Your task to perform on an android device: turn off location history Image 0: 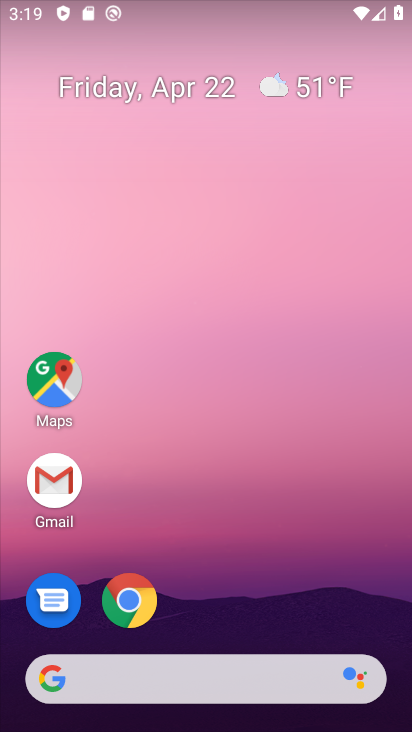
Step 0: drag from (194, 332) to (174, 197)
Your task to perform on an android device: turn off location history Image 1: 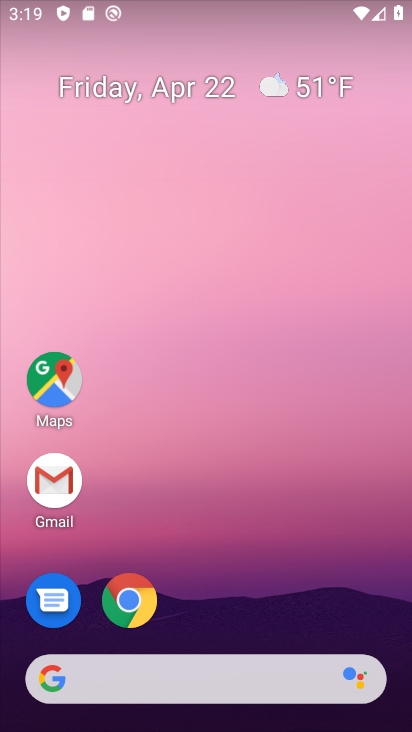
Step 1: click (135, 220)
Your task to perform on an android device: turn off location history Image 2: 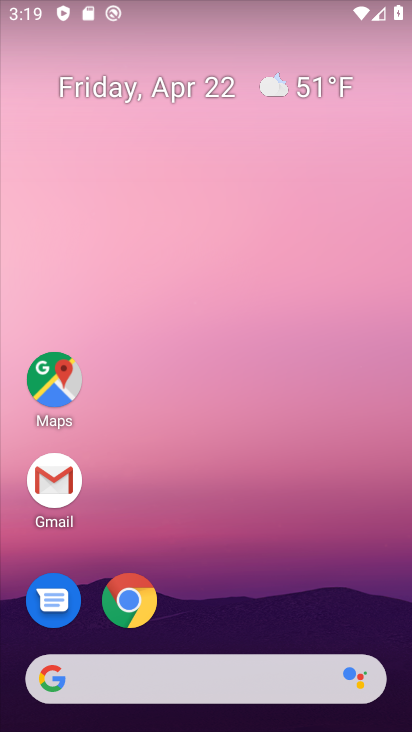
Step 2: drag from (127, 234) to (127, 178)
Your task to perform on an android device: turn off location history Image 3: 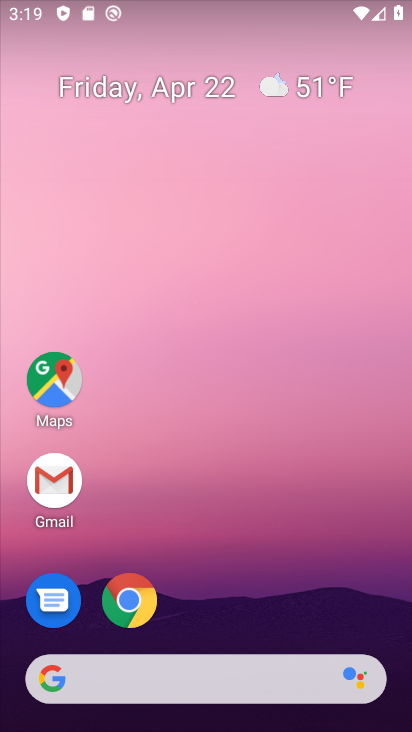
Step 3: drag from (217, 441) to (135, 120)
Your task to perform on an android device: turn off location history Image 4: 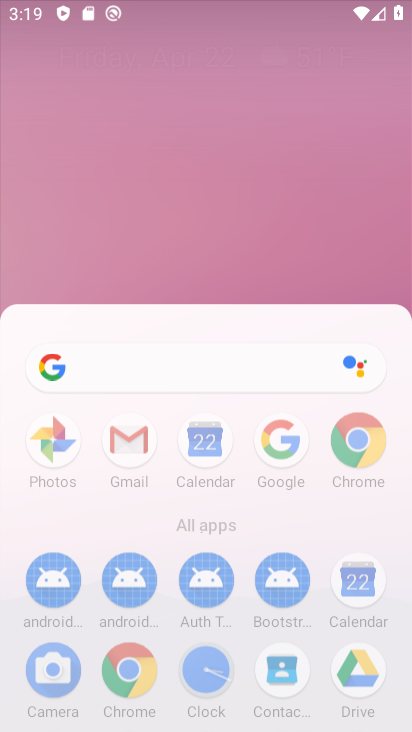
Step 4: drag from (194, 385) to (121, 118)
Your task to perform on an android device: turn off location history Image 5: 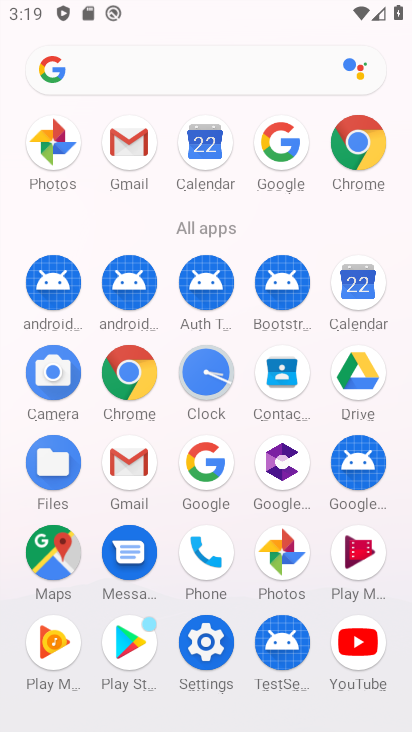
Step 5: click (33, 549)
Your task to perform on an android device: turn off location history Image 6: 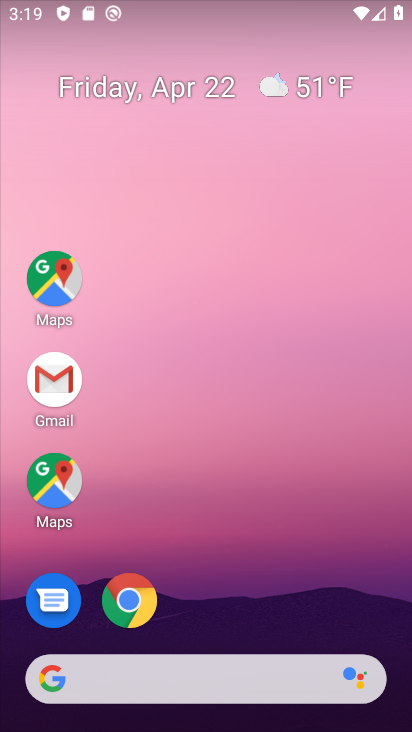
Step 6: drag from (212, 506) to (178, 302)
Your task to perform on an android device: turn off location history Image 7: 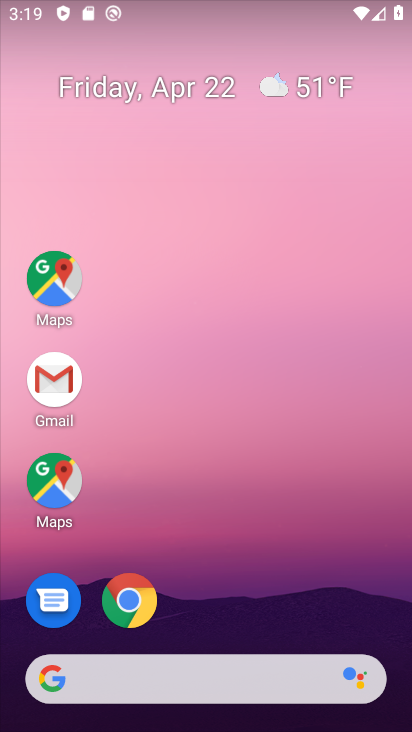
Step 7: drag from (213, 619) to (65, 223)
Your task to perform on an android device: turn off location history Image 8: 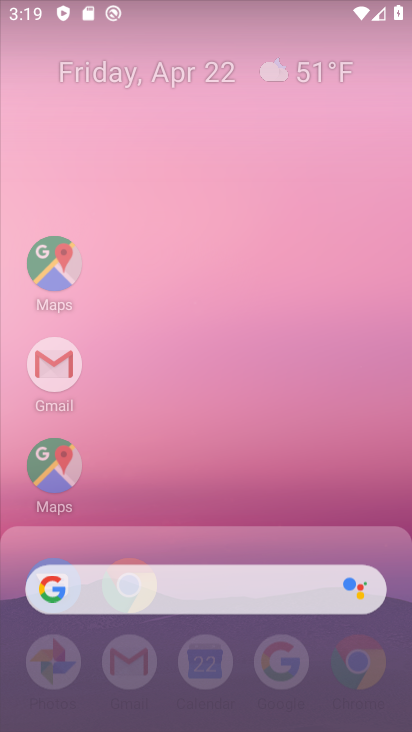
Step 8: click (161, 147)
Your task to perform on an android device: turn off location history Image 9: 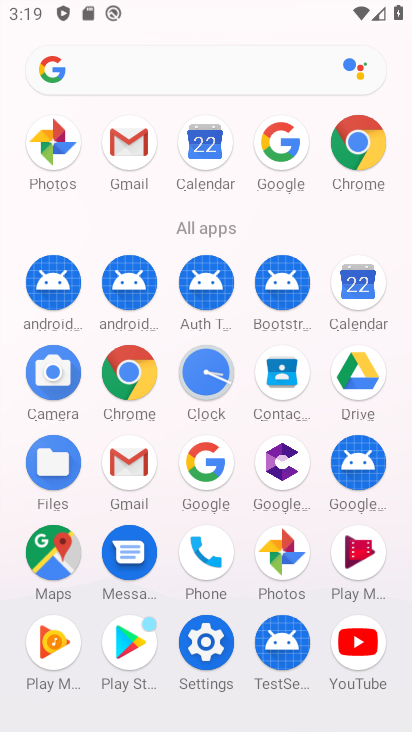
Step 9: drag from (186, 407) to (133, 152)
Your task to perform on an android device: turn off location history Image 10: 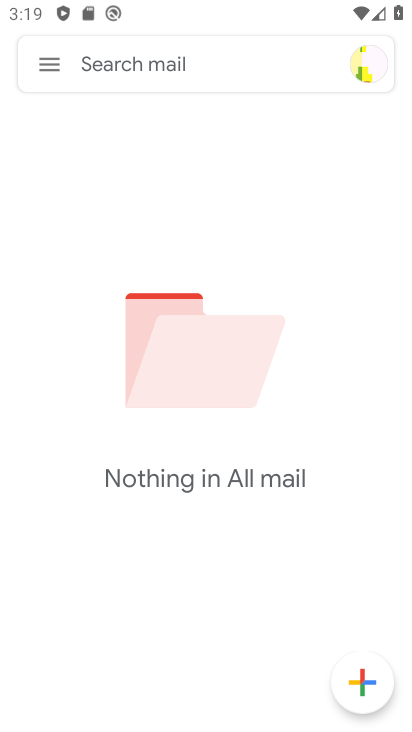
Step 10: drag from (181, 422) to (129, 68)
Your task to perform on an android device: turn off location history Image 11: 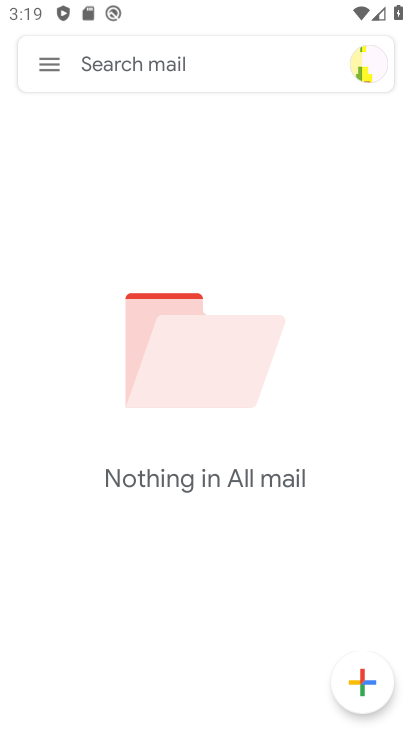
Step 11: press home button
Your task to perform on an android device: turn off location history Image 12: 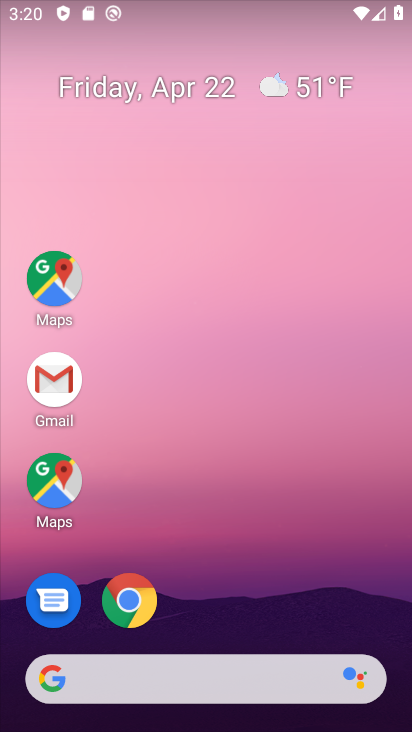
Step 12: drag from (239, 635) to (134, 10)
Your task to perform on an android device: turn off location history Image 13: 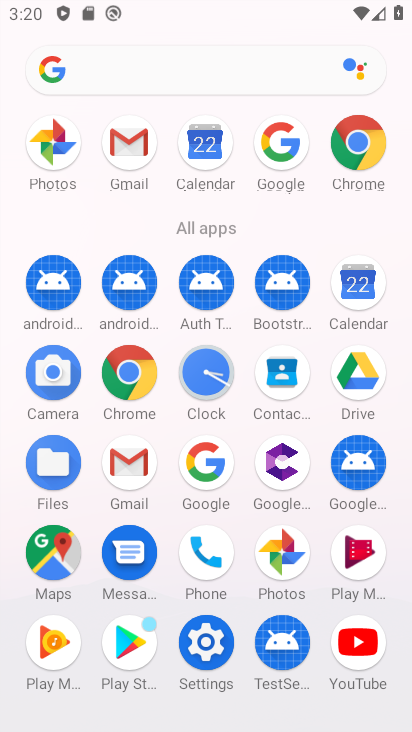
Step 13: drag from (145, 373) to (80, 46)
Your task to perform on an android device: turn off location history Image 14: 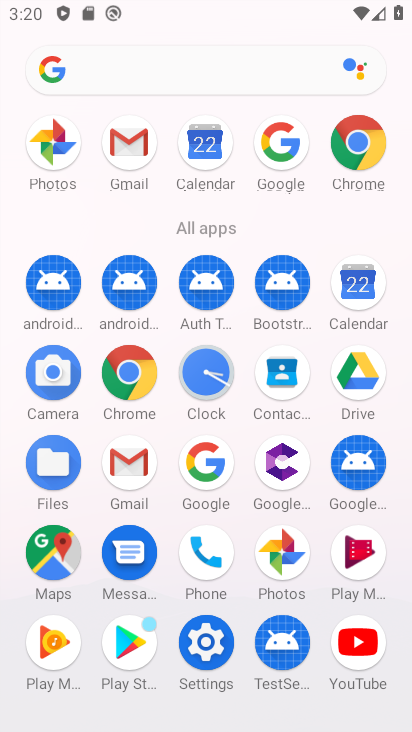
Step 14: click (45, 554)
Your task to perform on an android device: turn off location history Image 15: 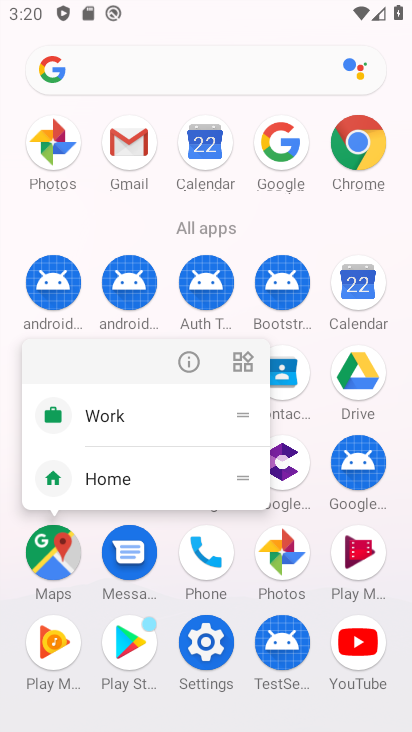
Step 15: click (50, 557)
Your task to perform on an android device: turn off location history Image 16: 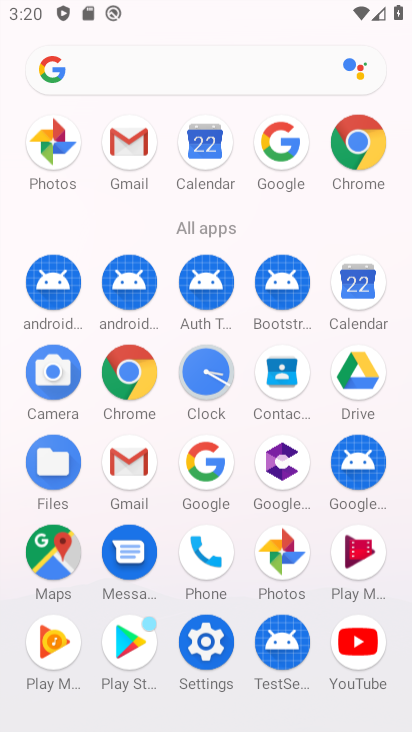
Step 16: click (47, 536)
Your task to perform on an android device: turn off location history Image 17: 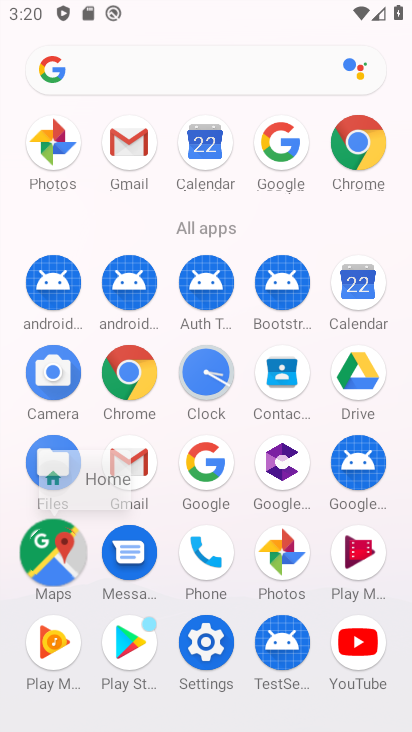
Step 17: click (46, 533)
Your task to perform on an android device: turn off location history Image 18: 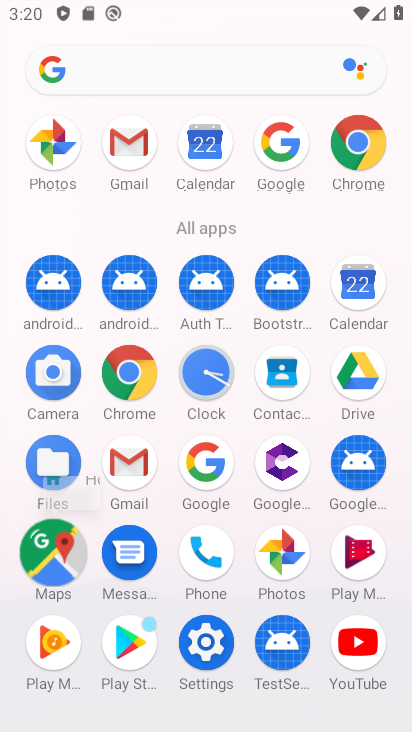
Step 18: click (46, 533)
Your task to perform on an android device: turn off location history Image 19: 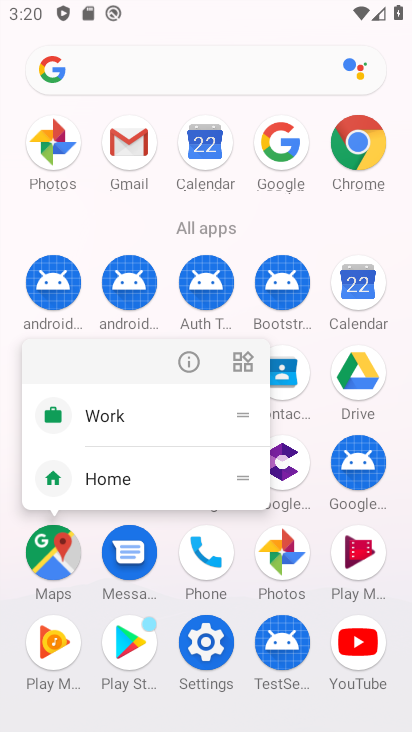
Step 19: click (51, 544)
Your task to perform on an android device: turn off location history Image 20: 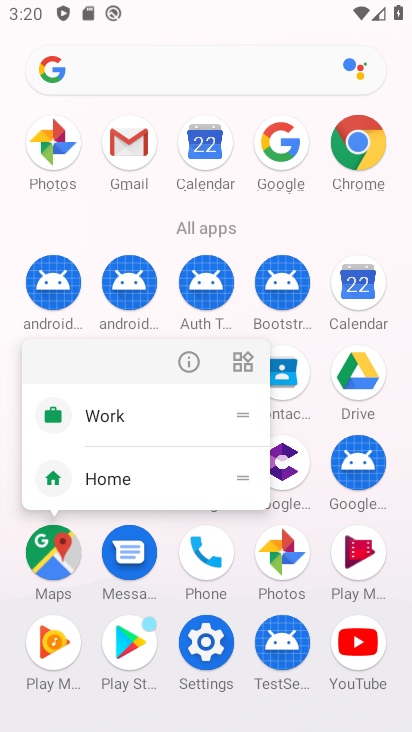
Step 20: click (51, 547)
Your task to perform on an android device: turn off location history Image 21: 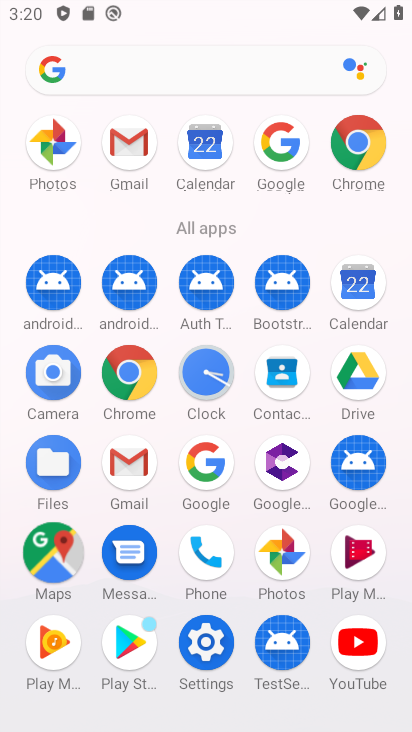
Step 21: click (41, 547)
Your task to perform on an android device: turn off location history Image 22: 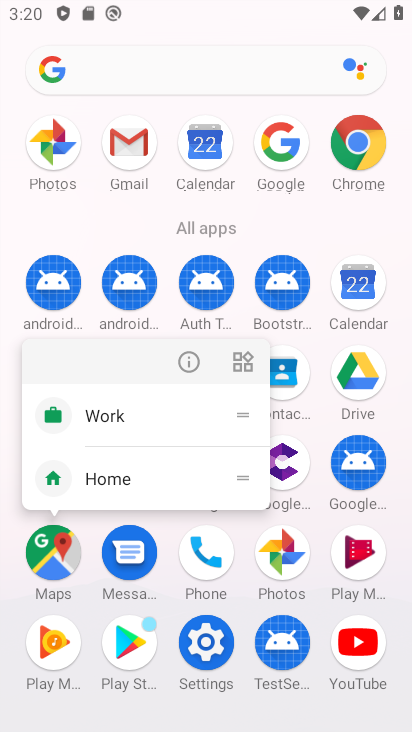
Step 22: click (52, 563)
Your task to perform on an android device: turn off location history Image 23: 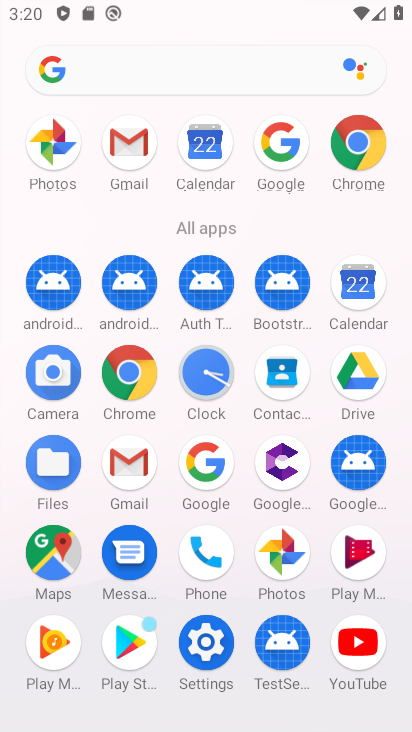
Step 23: click (58, 555)
Your task to perform on an android device: turn off location history Image 24: 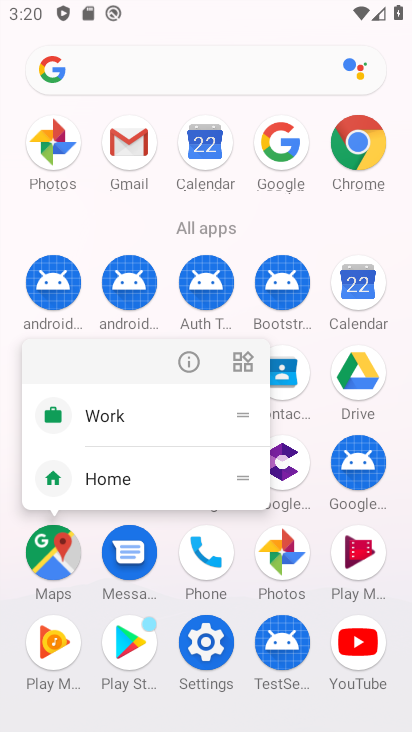
Step 24: click (43, 535)
Your task to perform on an android device: turn off location history Image 25: 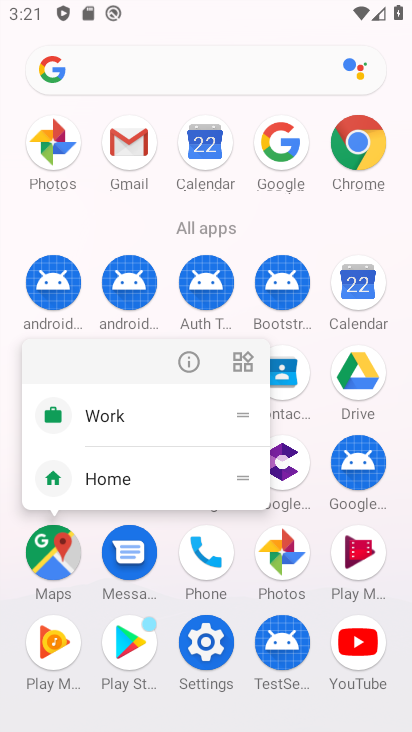
Step 25: click (47, 563)
Your task to perform on an android device: turn off location history Image 26: 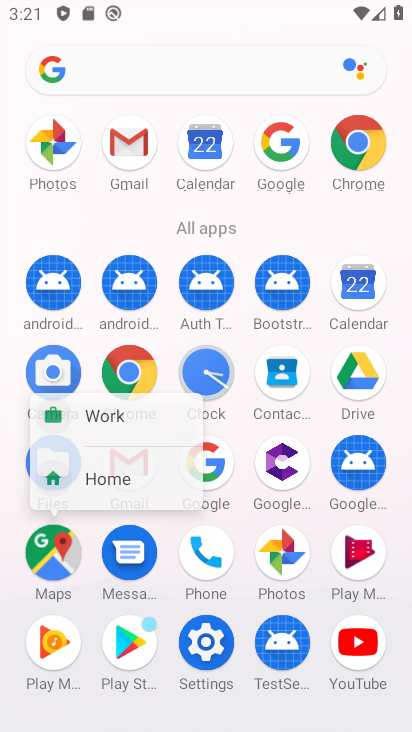
Step 26: click (47, 552)
Your task to perform on an android device: turn off location history Image 27: 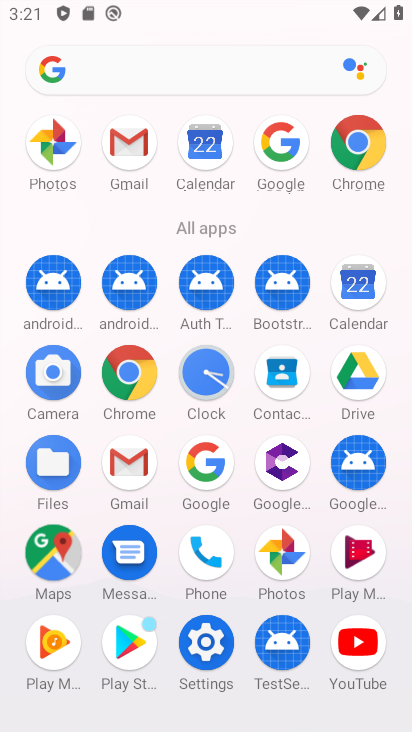
Step 27: click (52, 537)
Your task to perform on an android device: turn off location history Image 28: 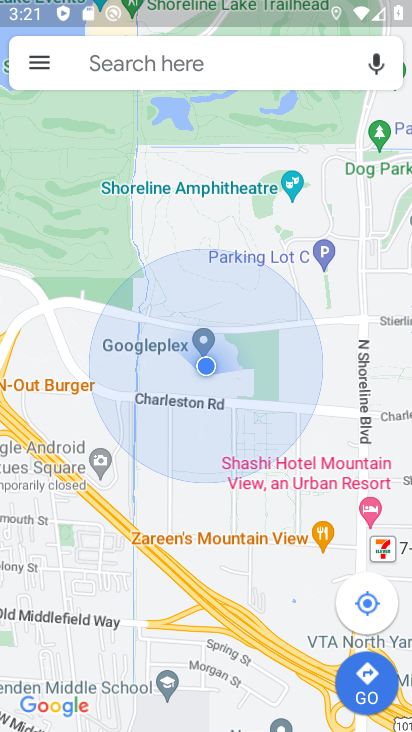
Step 28: click (34, 58)
Your task to perform on an android device: turn off location history Image 29: 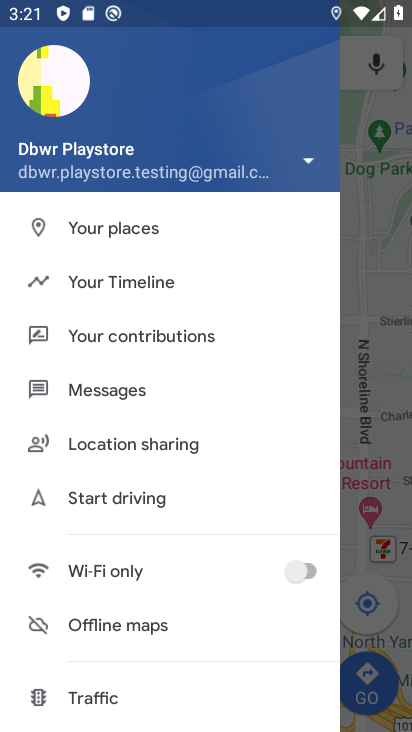
Step 29: click (118, 286)
Your task to perform on an android device: turn off location history Image 30: 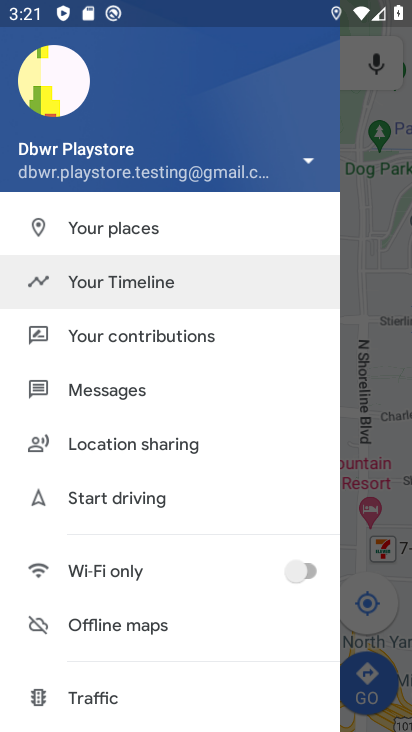
Step 30: click (117, 283)
Your task to perform on an android device: turn off location history Image 31: 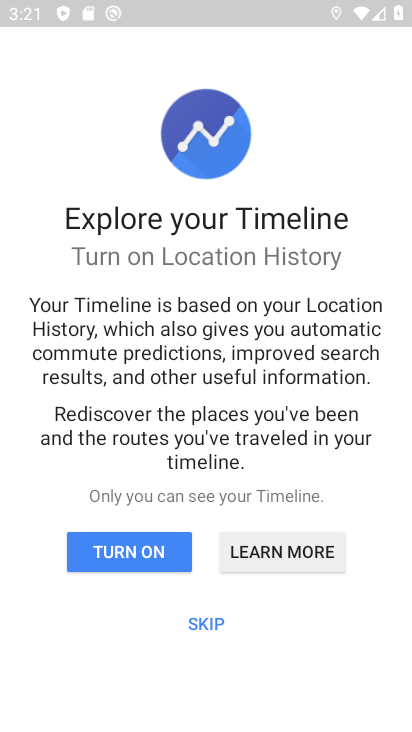
Step 31: click (116, 282)
Your task to perform on an android device: turn off location history Image 32: 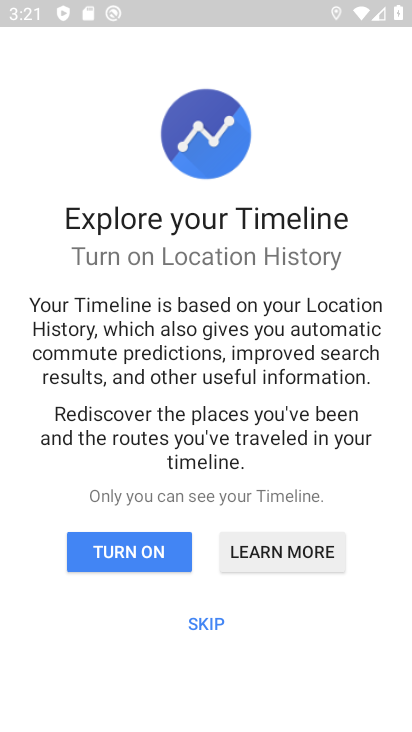
Step 32: click (145, 544)
Your task to perform on an android device: turn off location history Image 33: 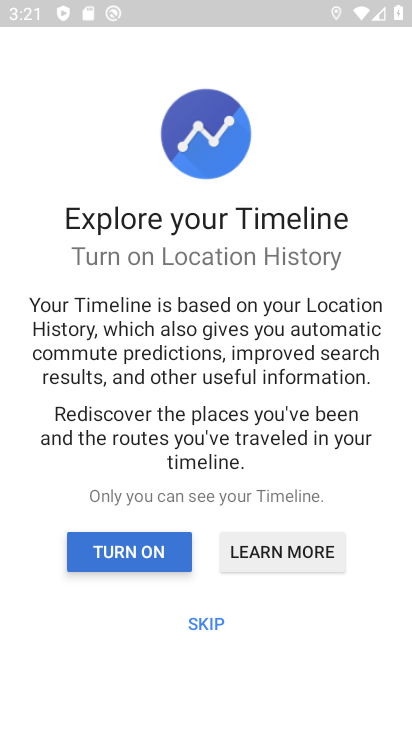
Step 33: click (144, 545)
Your task to perform on an android device: turn off location history Image 34: 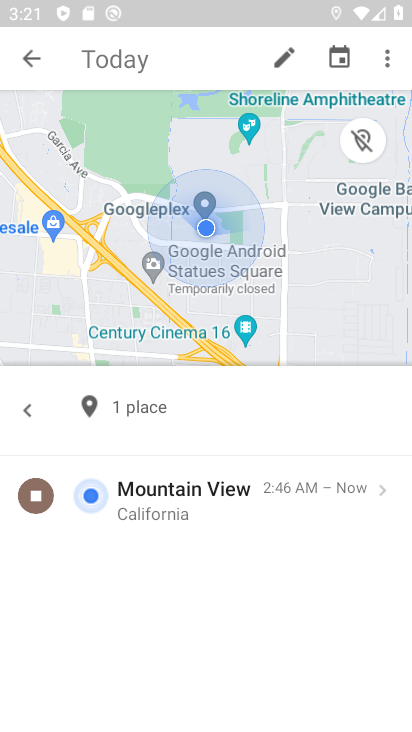
Step 34: drag from (384, 55) to (342, 700)
Your task to perform on an android device: turn off location history Image 35: 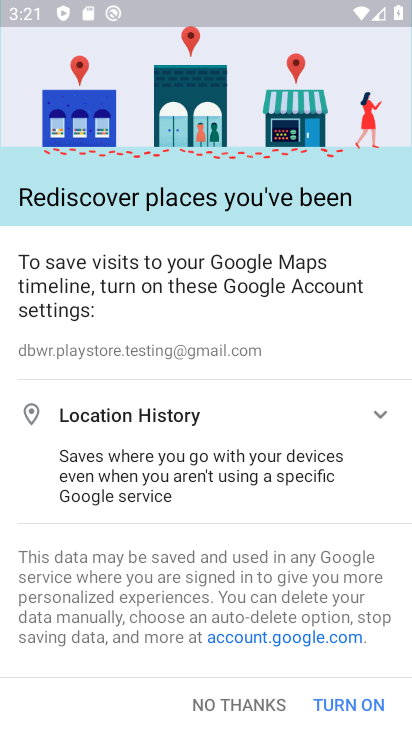
Step 35: click (342, 700)
Your task to perform on an android device: turn off location history Image 36: 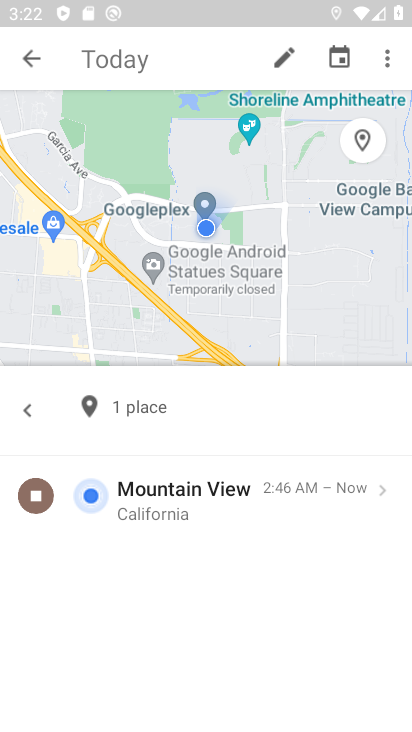
Step 36: click (384, 61)
Your task to perform on an android device: turn off location history Image 37: 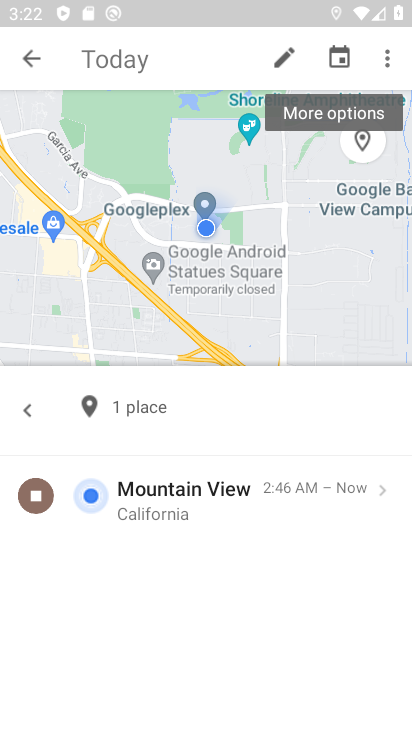
Step 37: drag from (383, 69) to (278, 379)
Your task to perform on an android device: turn off location history Image 38: 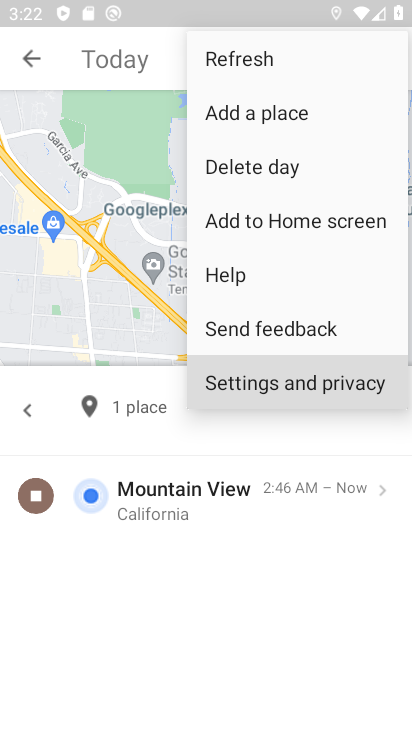
Step 38: click (278, 379)
Your task to perform on an android device: turn off location history Image 39: 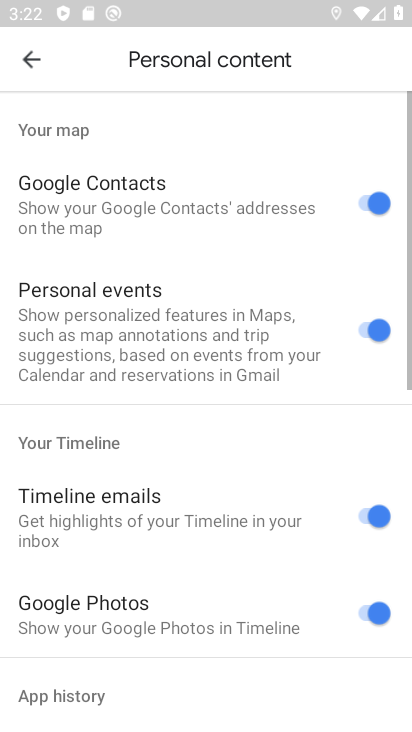
Step 39: click (273, 371)
Your task to perform on an android device: turn off location history Image 40: 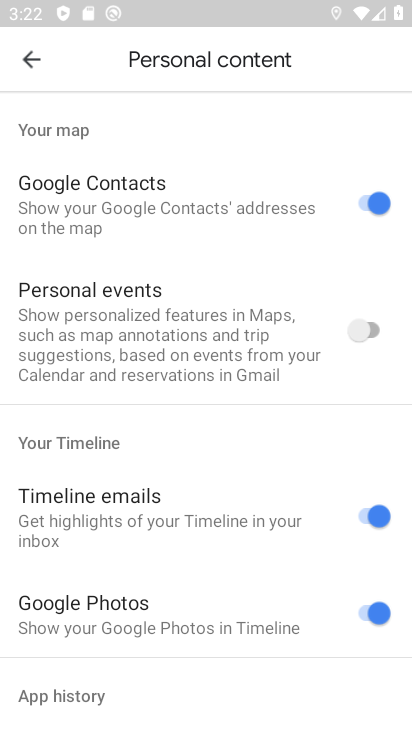
Step 40: drag from (139, 512) to (144, 280)
Your task to perform on an android device: turn off location history Image 41: 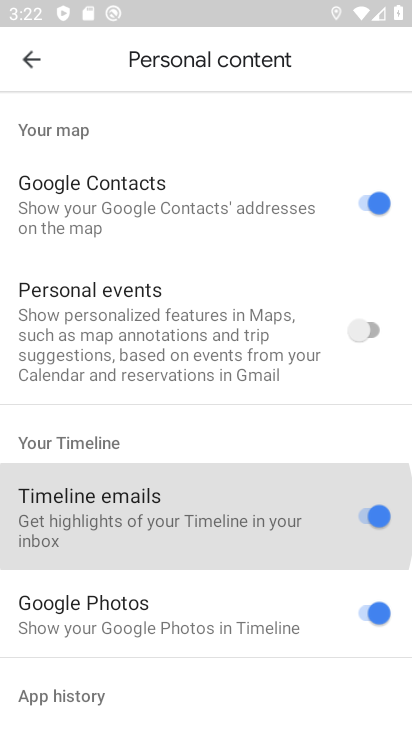
Step 41: drag from (233, 484) to (177, 250)
Your task to perform on an android device: turn off location history Image 42: 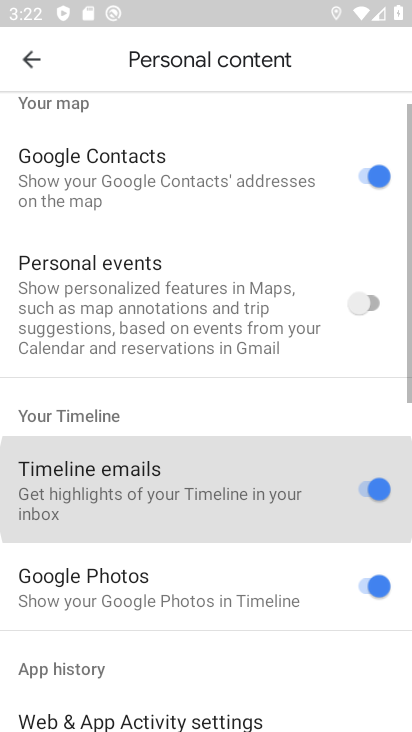
Step 42: drag from (203, 480) to (199, 264)
Your task to perform on an android device: turn off location history Image 43: 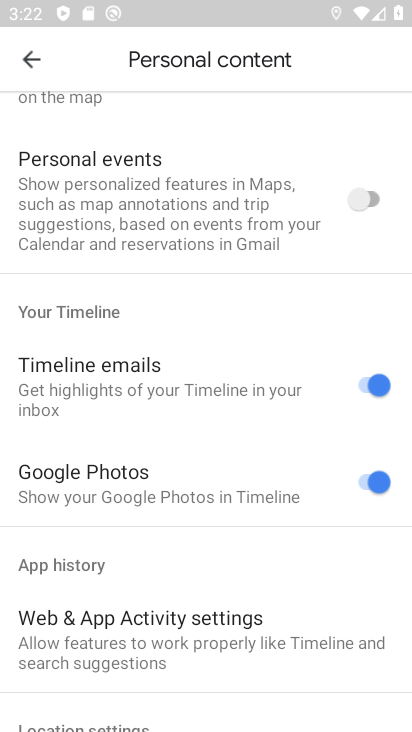
Step 43: drag from (159, 512) to (94, 249)
Your task to perform on an android device: turn off location history Image 44: 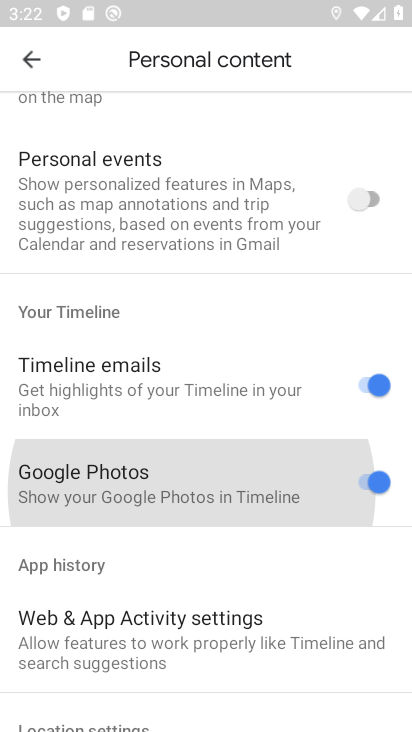
Step 44: drag from (176, 567) to (107, 279)
Your task to perform on an android device: turn off location history Image 45: 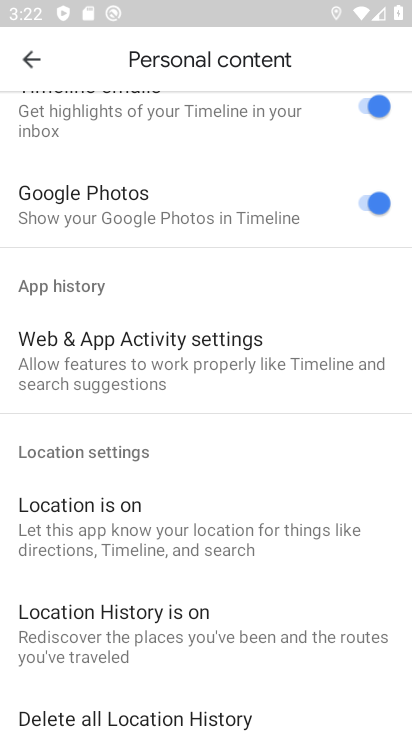
Step 45: drag from (184, 623) to (164, 166)
Your task to perform on an android device: turn off location history Image 46: 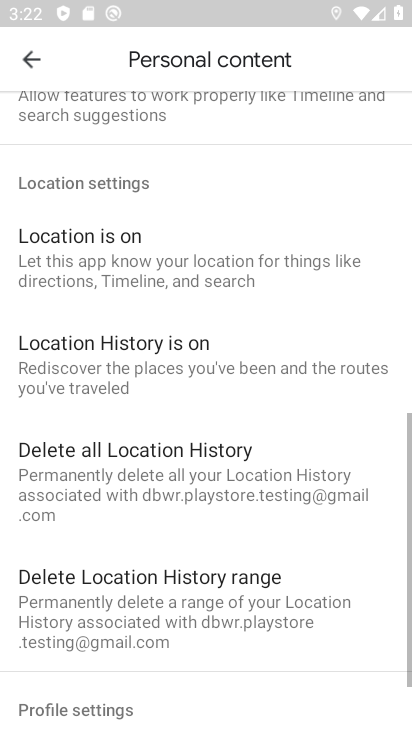
Step 46: click (151, 136)
Your task to perform on an android device: turn off location history Image 47: 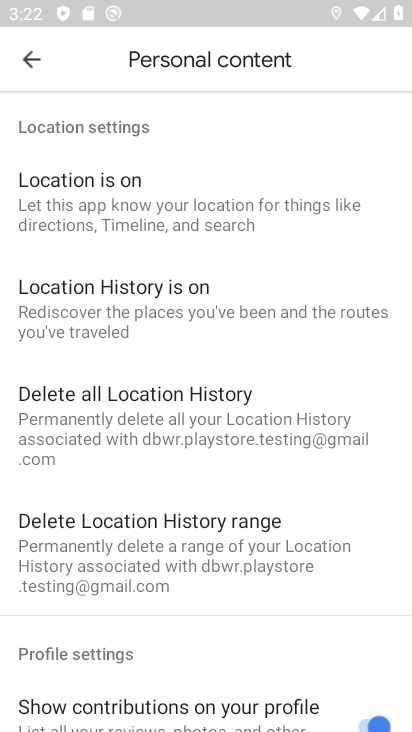
Step 47: click (92, 311)
Your task to perform on an android device: turn off location history Image 48: 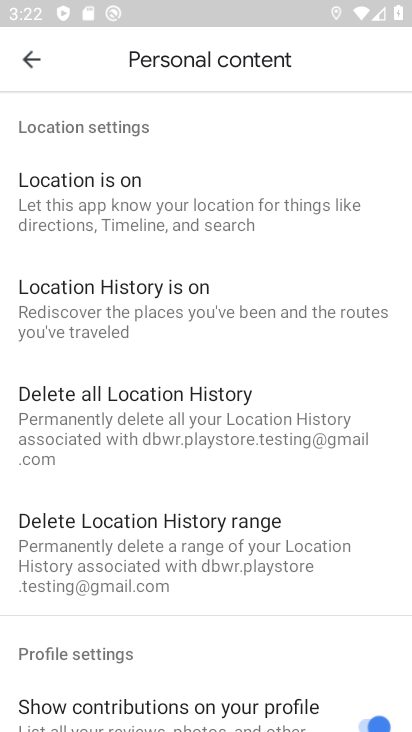
Step 48: click (85, 316)
Your task to perform on an android device: turn off location history Image 49: 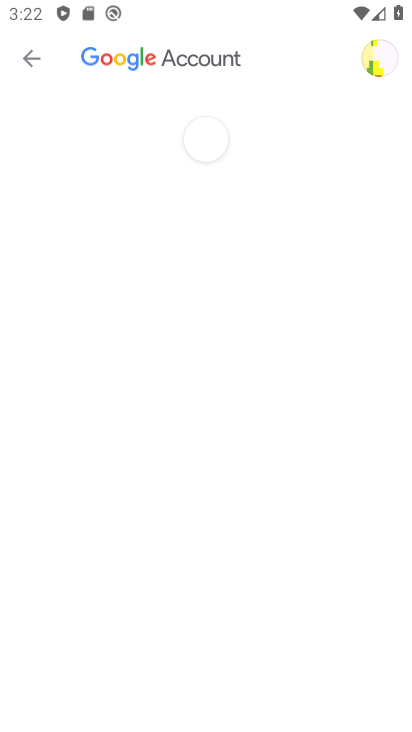
Step 49: drag from (157, 322) to (131, 162)
Your task to perform on an android device: turn off location history Image 50: 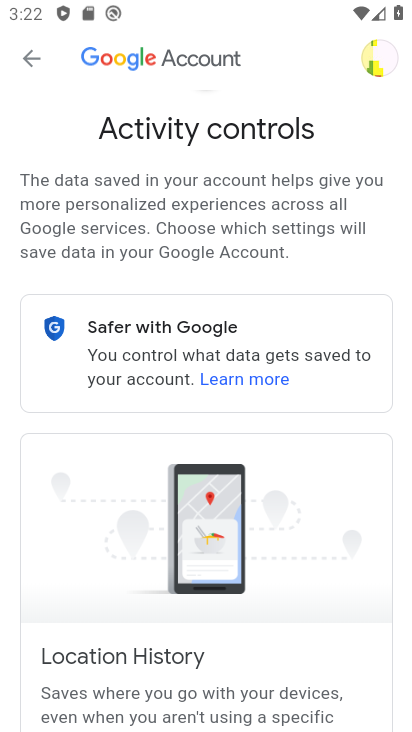
Step 50: click (175, 245)
Your task to perform on an android device: turn off location history Image 51: 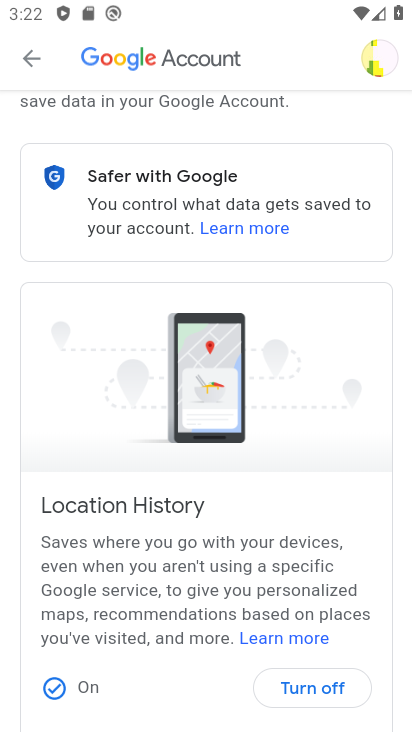
Step 51: click (21, 53)
Your task to perform on an android device: turn off location history Image 52: 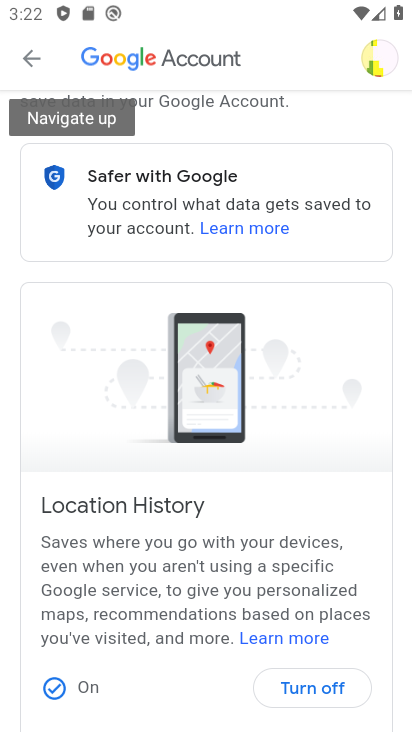
Step 52: click (323, 687)
Your task to perform on an android device: turn off location history Image 53: 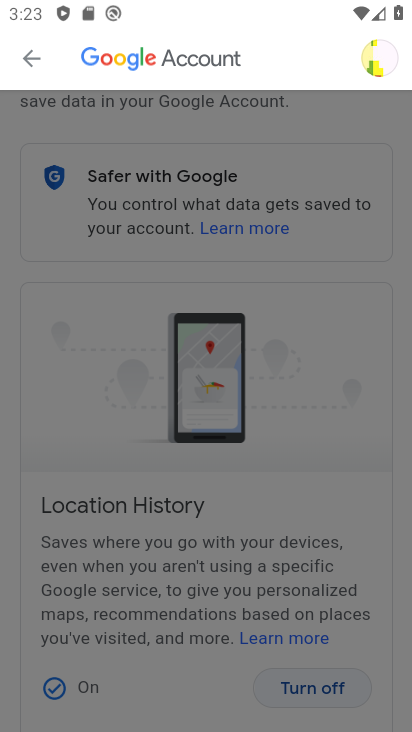
Step 53: click (323, 687)
Your task to perform on an android device: turn off location history Image 54: 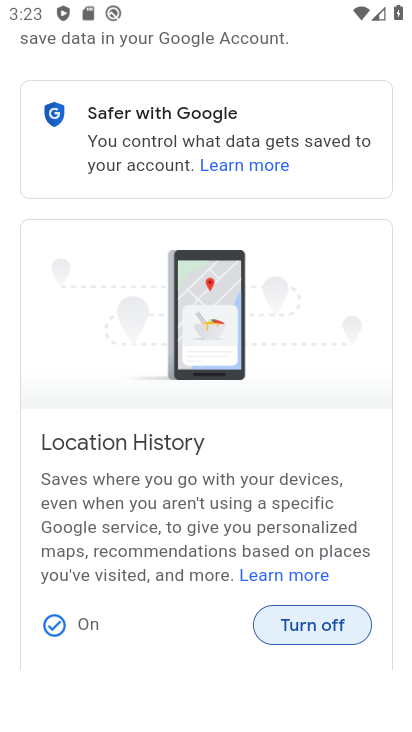
Step 54: click (323, 687)
Your task to perform on an android device: turn off location history Image 55: 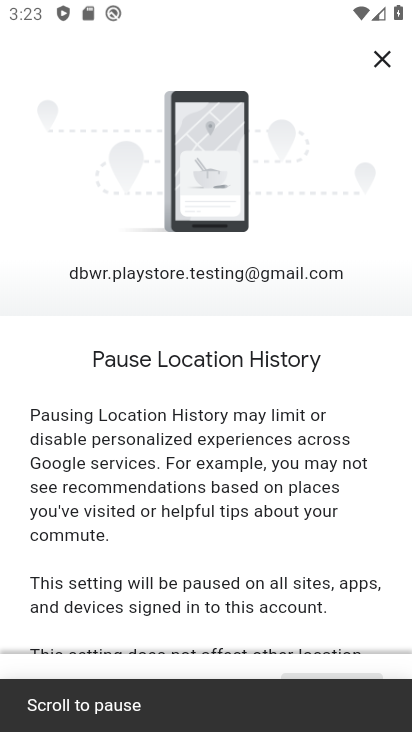
Step 55: task complete